Your task to perform on an android device: Set the phone to "Do not disturb". Image 0: 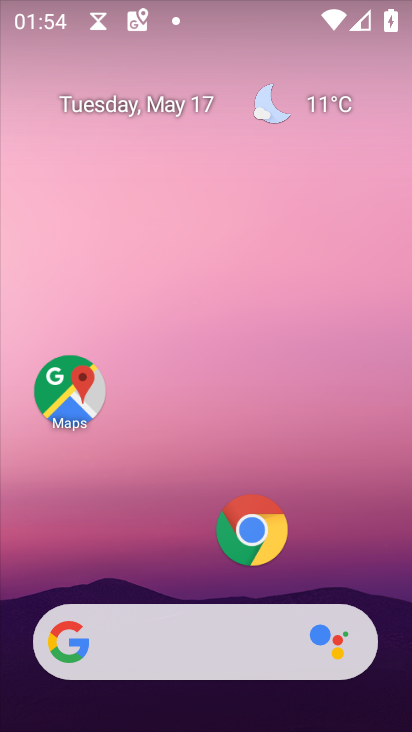
Step 0: drag from (367, 569) to (315, 156)
Your task to perform on an android device: Set the phone to "Do not disturb". Image 1: 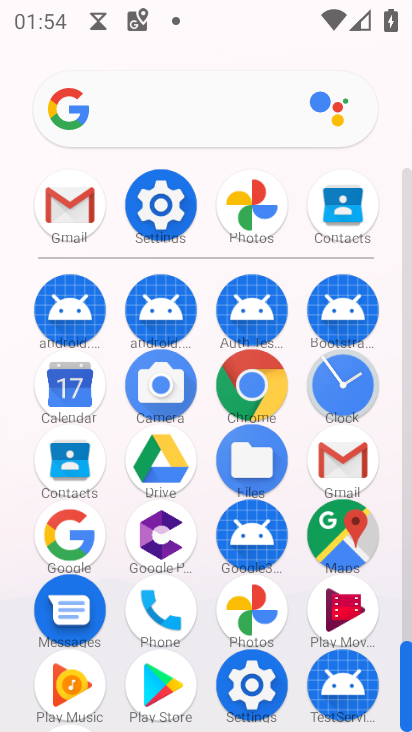
Step 1: click (152, 216)
Your task to perform on an android device: Set the phone to "Do not disturb". Image 2: 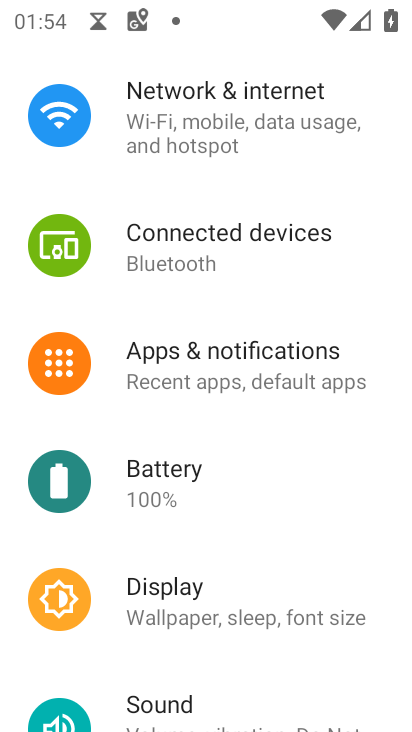
Step 2: click (214, 611)
Your task to perform on an android device: Set the phone to "Do not disturb". Image 3: 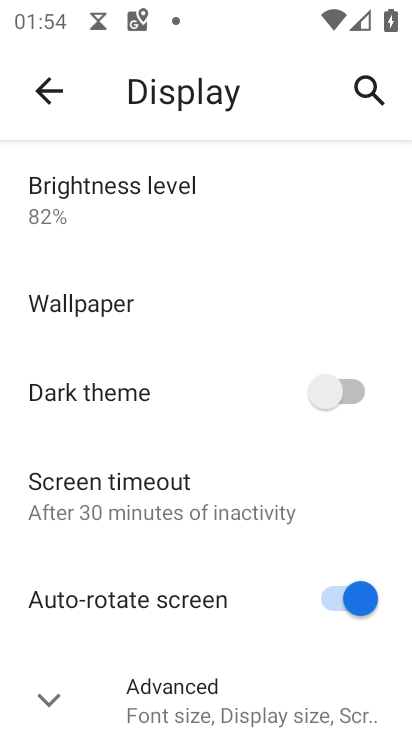
Step 3: drag from (182, 656) to (239, 279)
Your task to perform on an android device: Set the phone to "Do not disturb". Image 4: 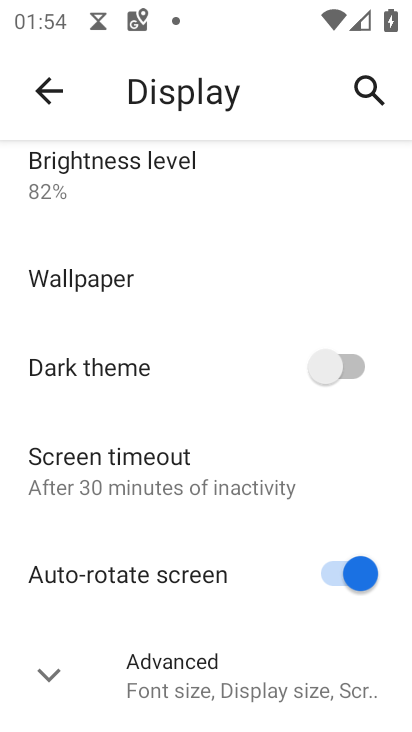
Step 4: click (79, 669)
Your task to perform on an android device: Set the phone to "Do not disturb". Image 5: 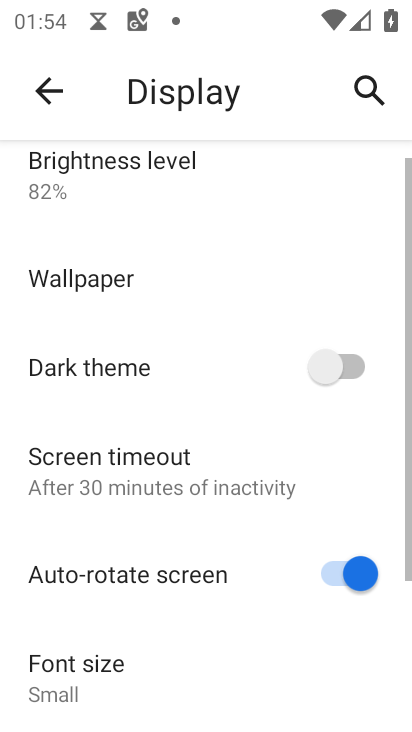
Step 5: drag from (270, 676) to (310, 474)
Your task to perform on an android device: Set the phone to "Do not disturb". Image 6: 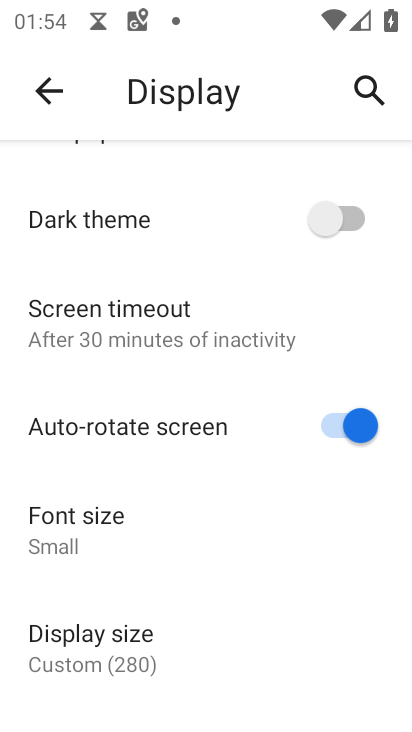
Step 6: drag from (294, 595) to (272, 167)
Your task to perform on an android device: Set the phone to "Do not disturb". Image 7: 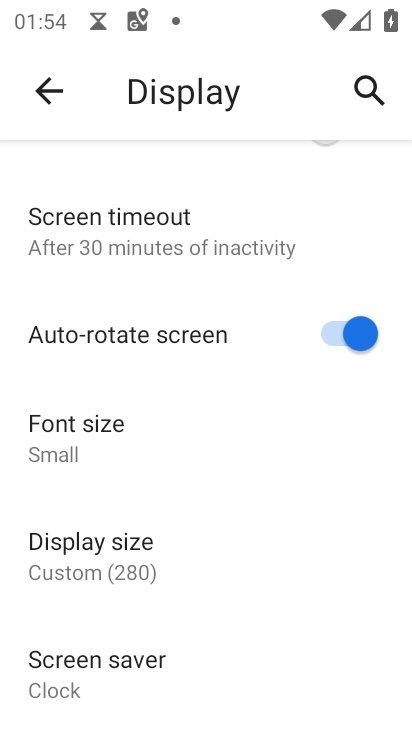
Step 7: press back button
Your task to perform on an android device: Set the phone to "Do not disturb". Image 8: 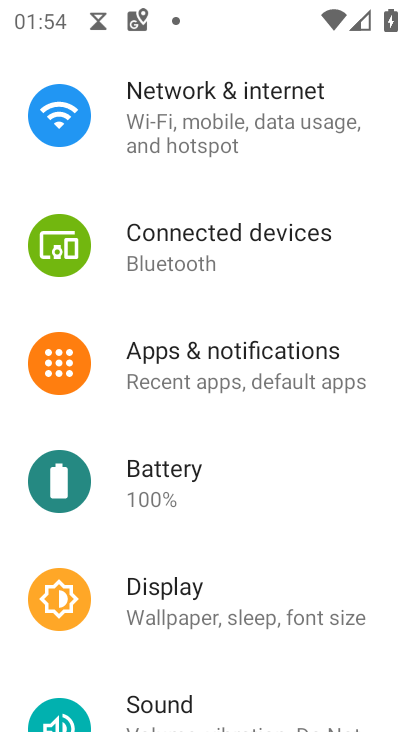
Step 8: drag from (228, 659) to (229, 240)
Your task to perform on an android device: Set the phone to "Do not disturb". Image 9: 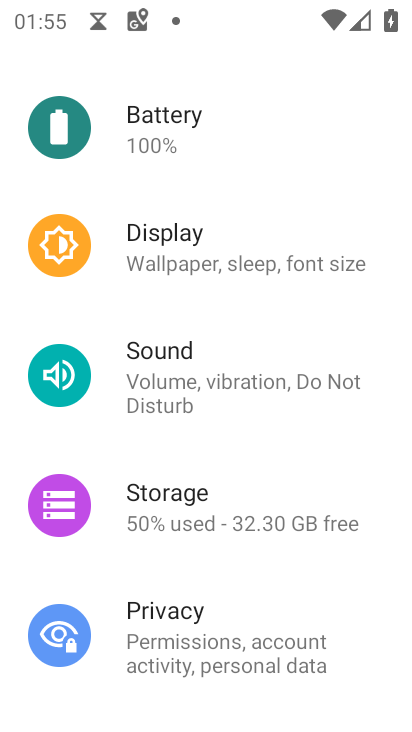
Step 9: click (190, 399)
Your task to perform on an android device: Set the phone to "Do not disturb". Image 10: 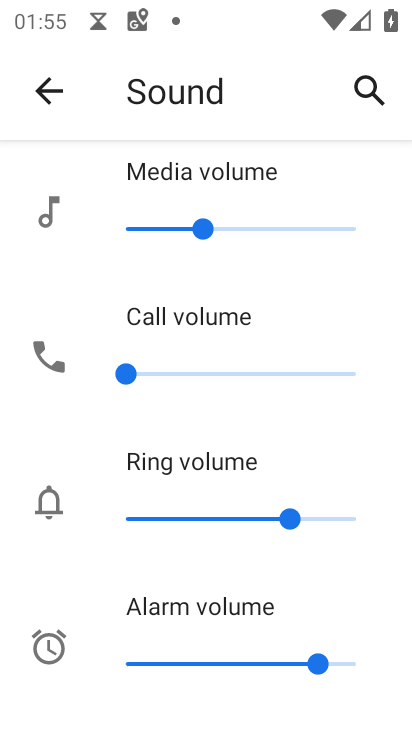
Step 10: drag from (368, 685) to (390, 142)
Your task to perform on an android device: Set the phone to "Do not disturb". Image 11: 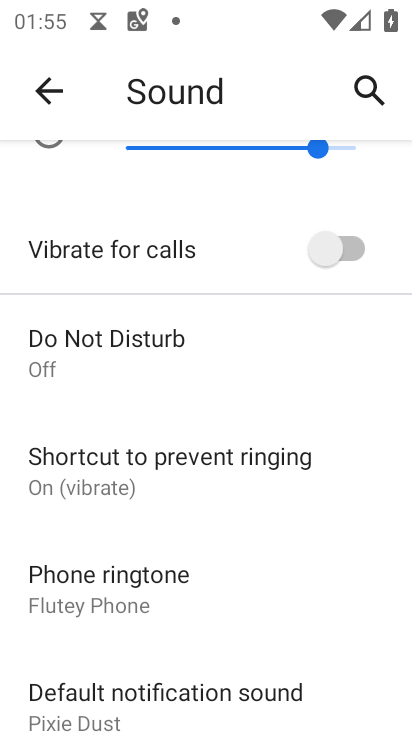
Step 11: click (193, 359)
Your task to perform on an android device: Set the phone to "Do not disturb". Image 12: 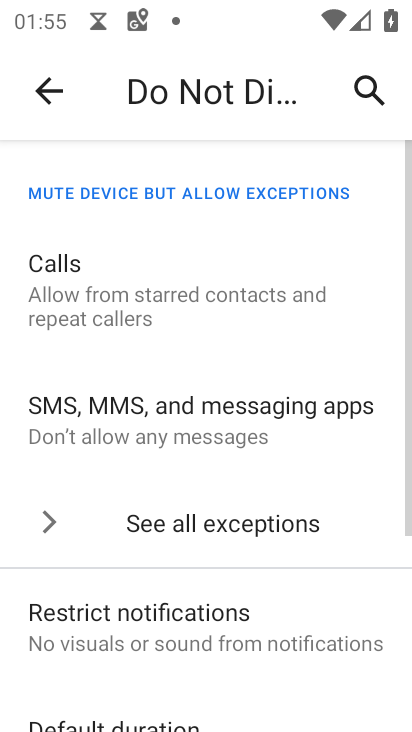
Step 12: drag from (222, 601) to (248, 136)
Your task to perform on an android device: Set the phone to "Do not disturb". Image 13: 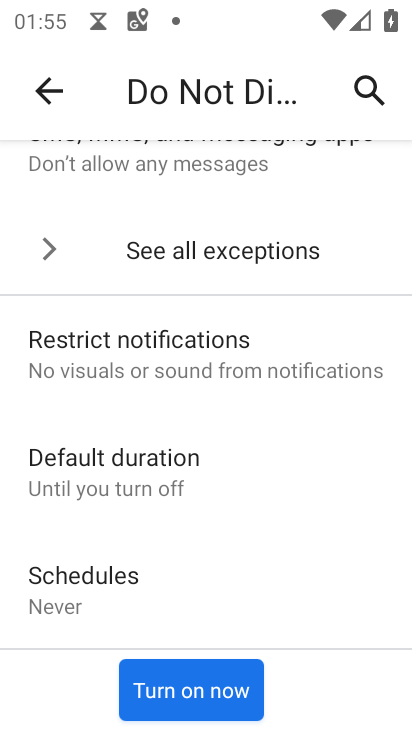
Step 13: click (174, 696)
Your task to perform on an android device: Set the phone to "Do not disturb". Image 14: 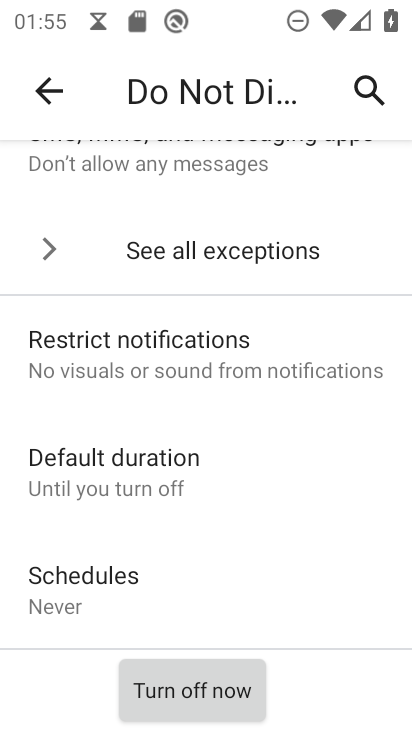
Step 14: task complete